Your task to perform on an android device: What's the news in Myanmar? Image 0: 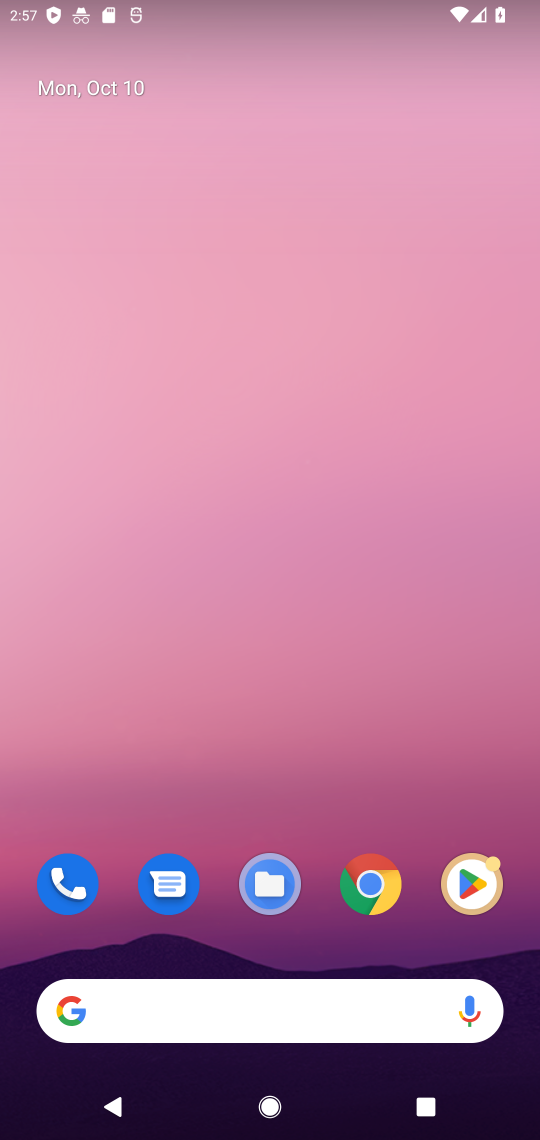
Step 0: click (345, 1005)
Your task to perform on an android device: What's the news in Myanmar? Image 1: 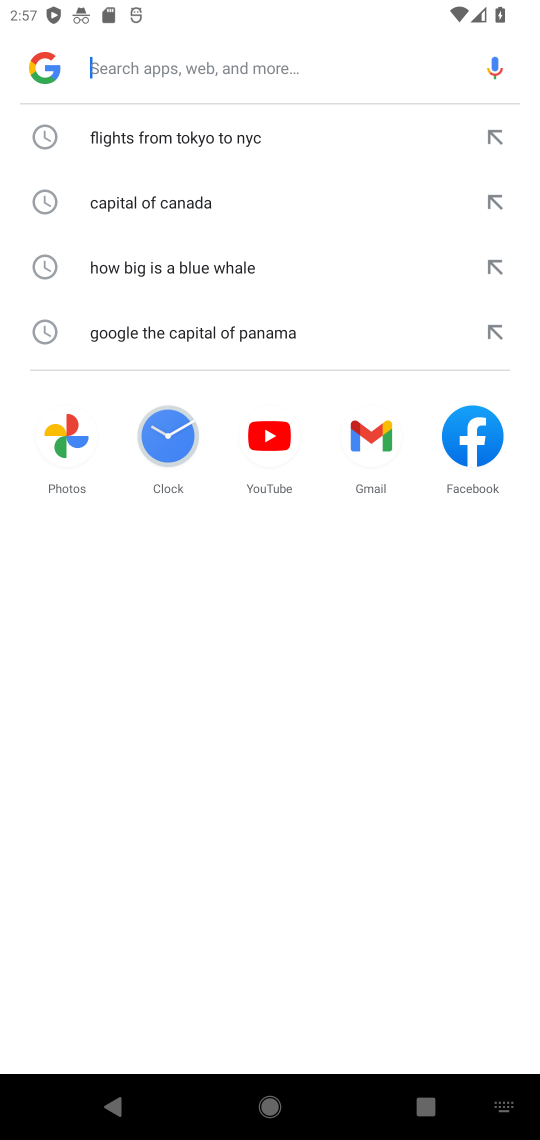
Step 1: type "What's the news in Myanmar?"
Your task to perform on an android device: What's the news in Myanmar? Image 2: 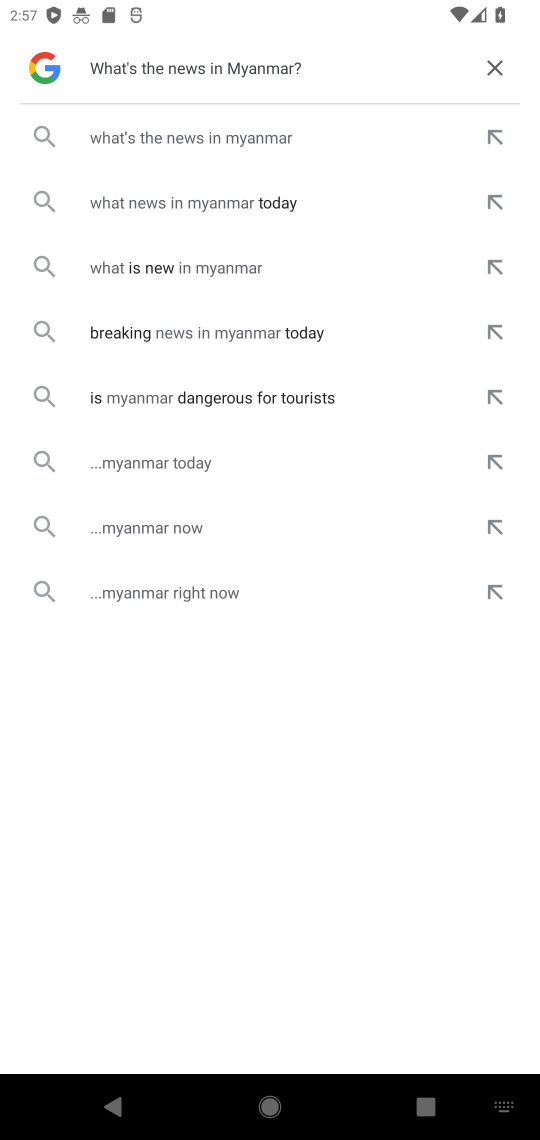
Step 2: click (235, 130)
Your task to perform on an android device: What's the news in Myanmar? Image 3: 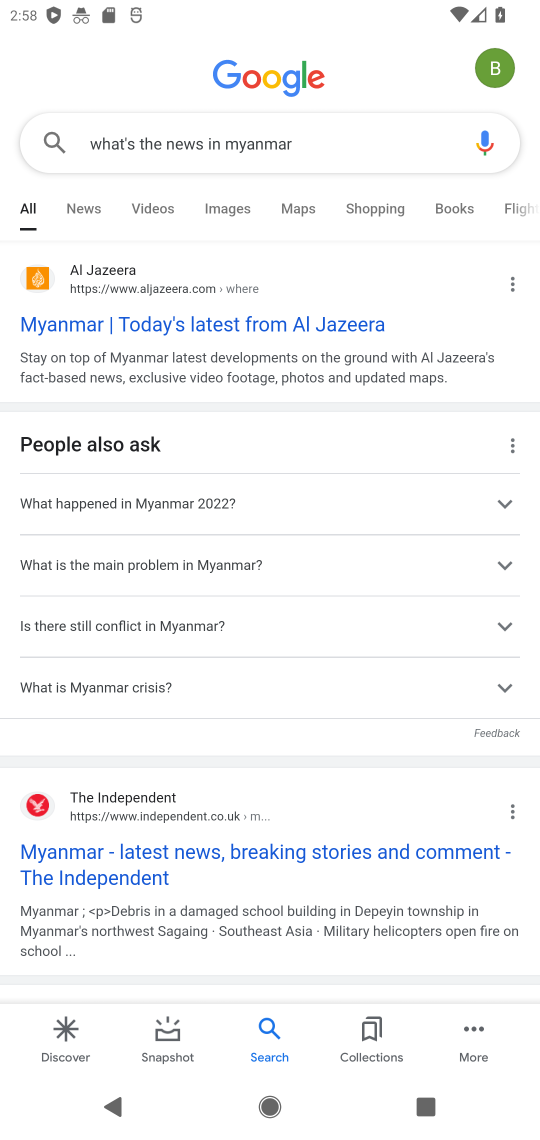
Step 3: click (206, 323)
Your task to perform on an android device: What's the news in Myanmar? Image 4: 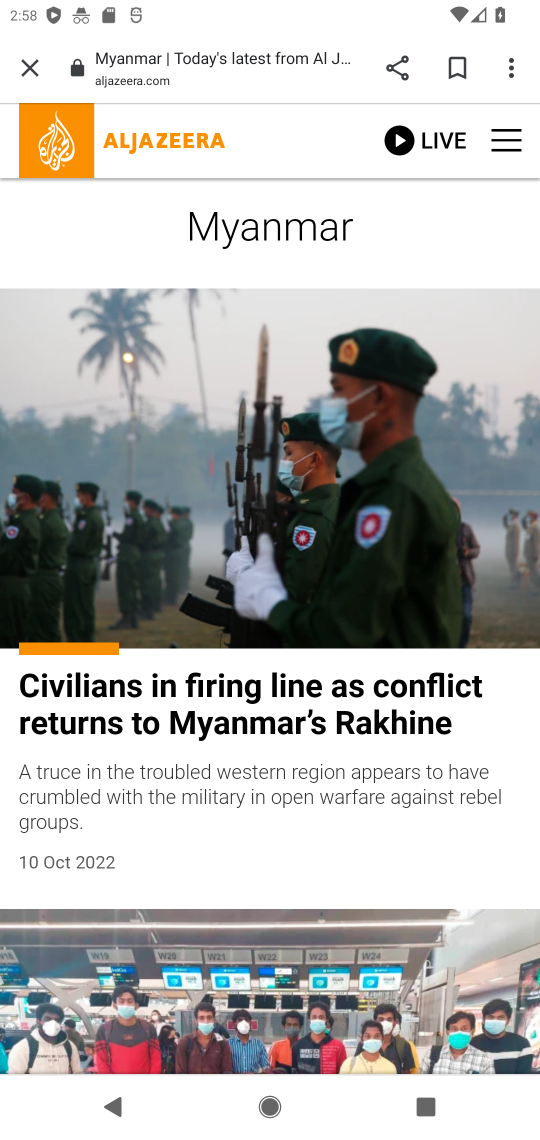
Step 4: task complete